Your task to perform on an android device: Go to internet settings Image 0: 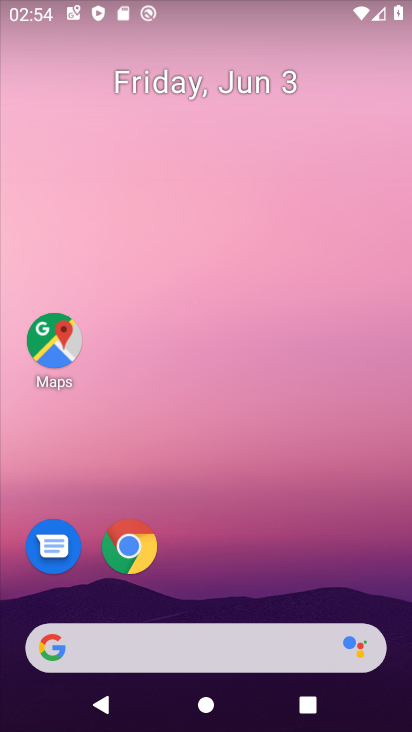
Step 0: drag from (236, 574) to (244, 74)
Your task to perform on an android device: Go to internet settings Image 1: 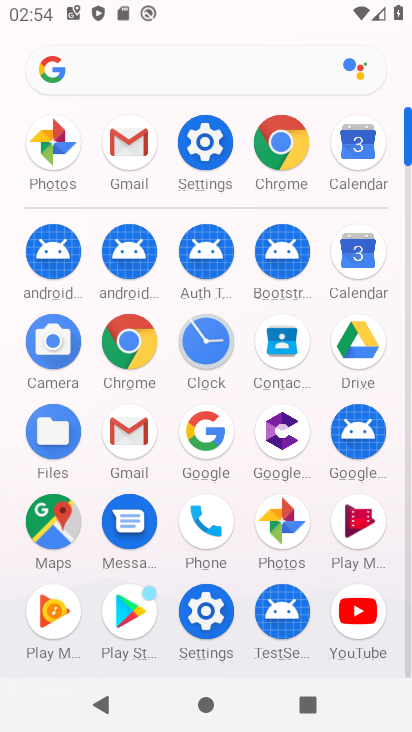
Step 1: click (185, 142)
Your task to perform on an android device: Go to internet settings Image 2: 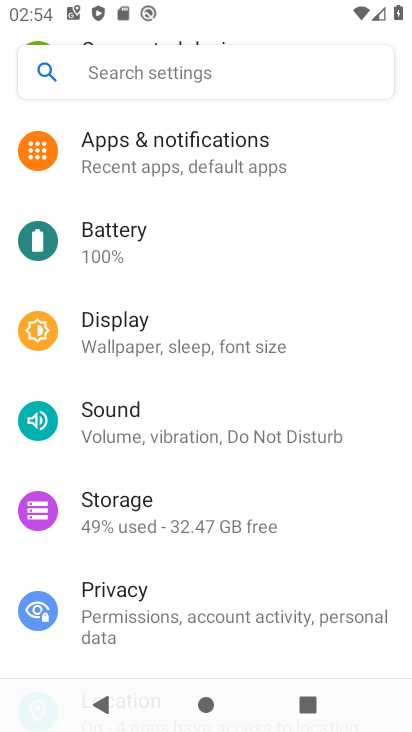
Step 2: drag from (184, 143) to (317, 696)
Your task to perform on an android device: Go to internet settings Image 3: 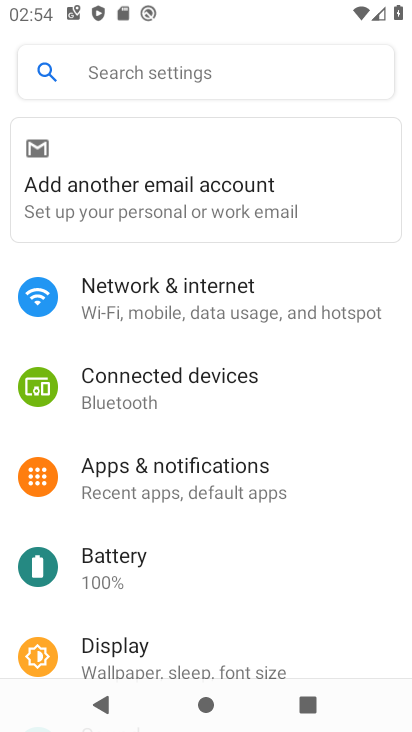
Step 3: click (262, 311)
Your task to perform on an android device: Go to internet settings Image 4: 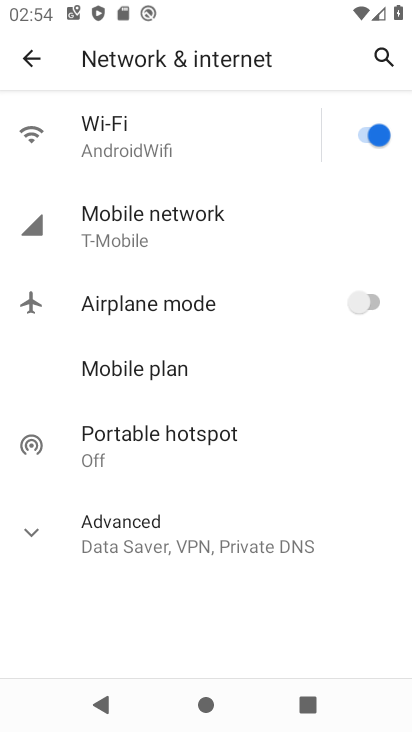
Step 4: click (156, 224)
Your task to perform on an android device: Go to internet settings Image 5: 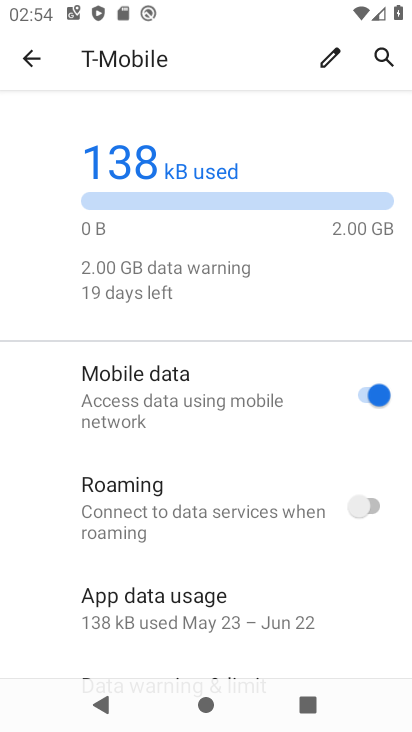
Step 5: task complete